Your task to perform on an android device: Search for Mexican restaurants on Maps Image 0: 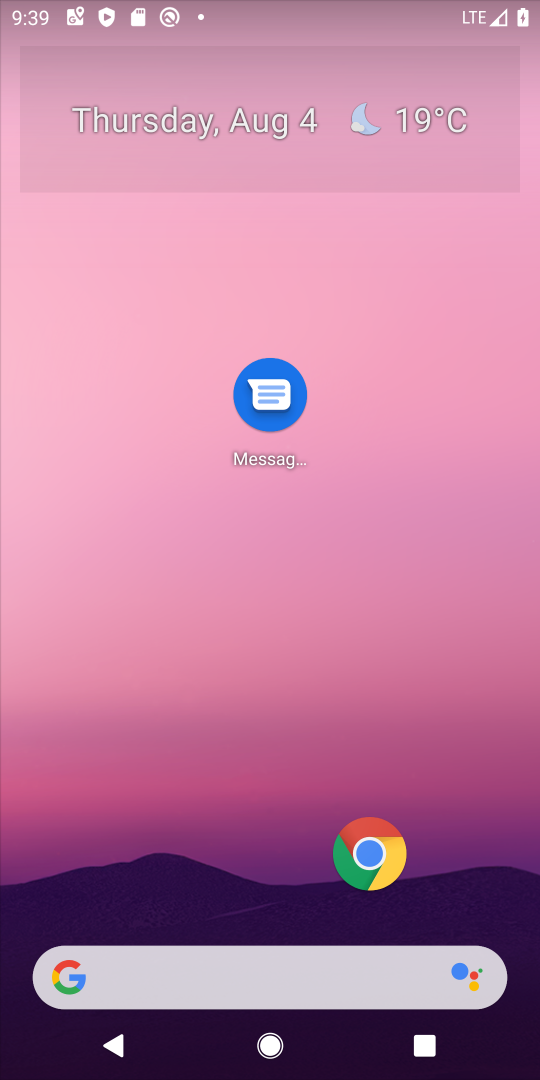
Step 0: drag from (342, 941) to (343, 381)
Your task to perform on an android device: Search for Mexican restaurants on Maps Image 1: 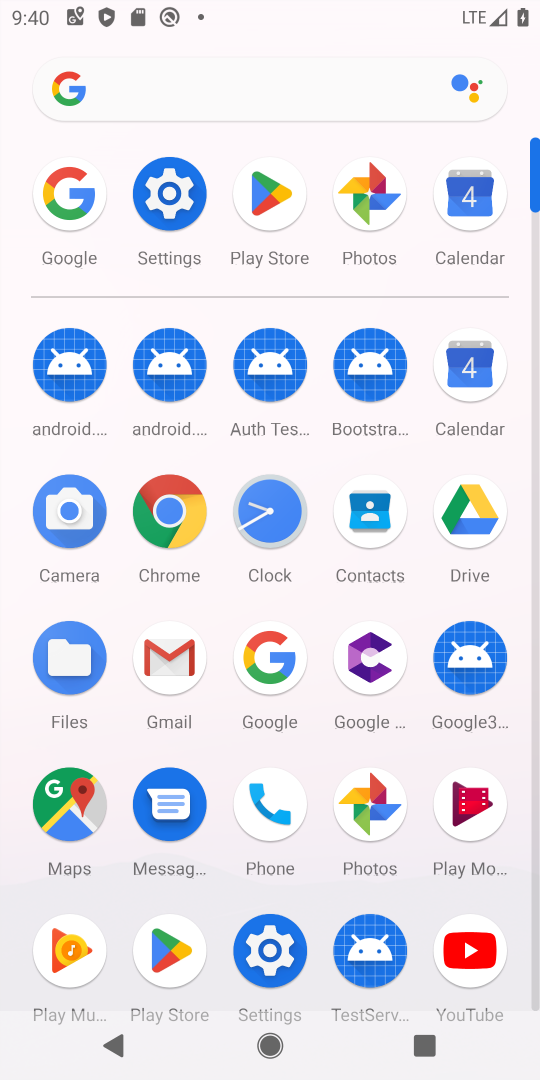
Step 1: click (70, 820)
Your task to perform on an android device: Search for Mexican restaurants on Maps Image 2: 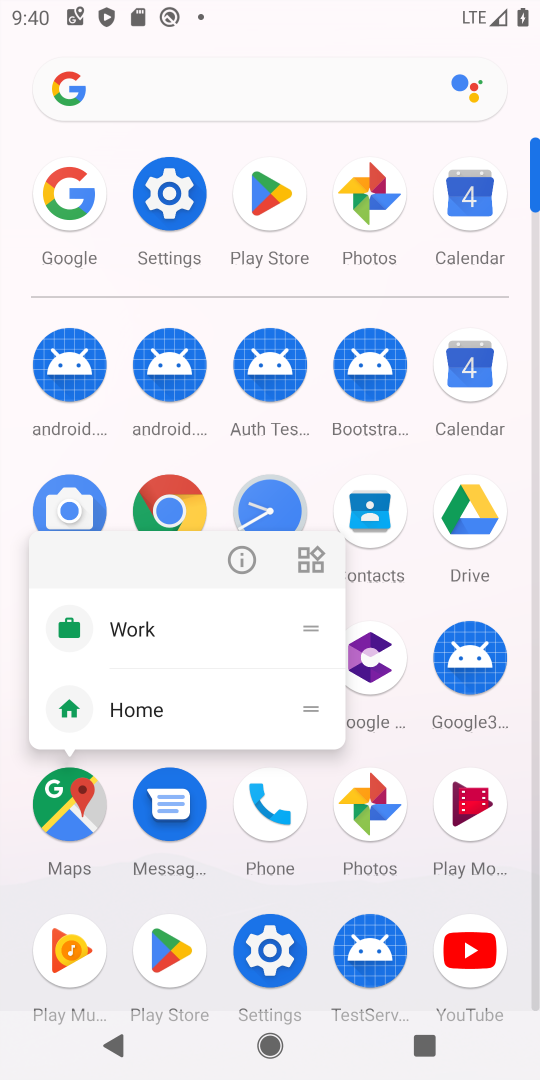
Step 2: click (69, 809)
Your task to perform on an android device: Search for Mexican restaurants on Maps Image 3: 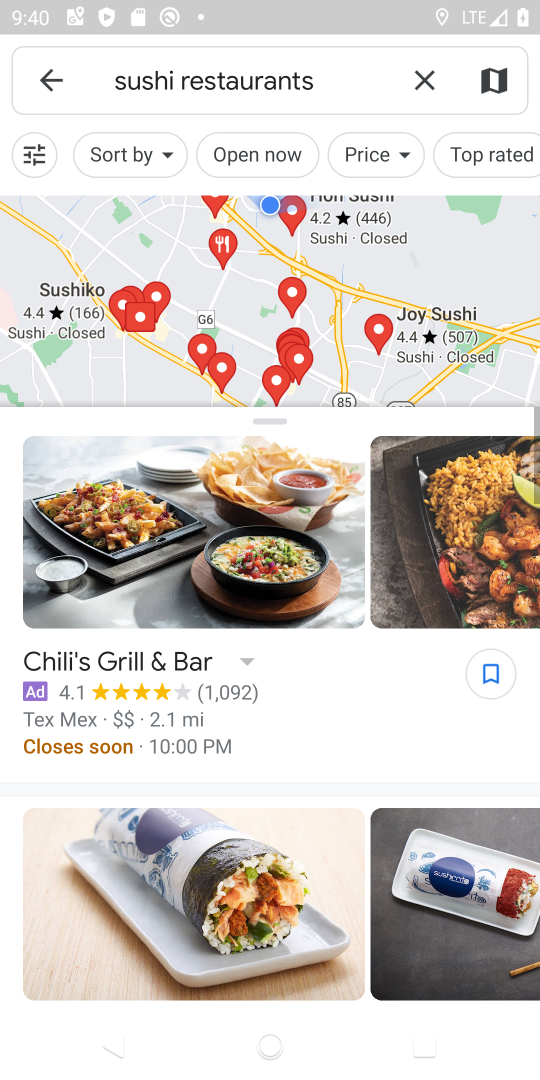
Step 3: click (423, 80)
Your task to perform on an android device: Search for Mexican restaurants on Maps Image 4: 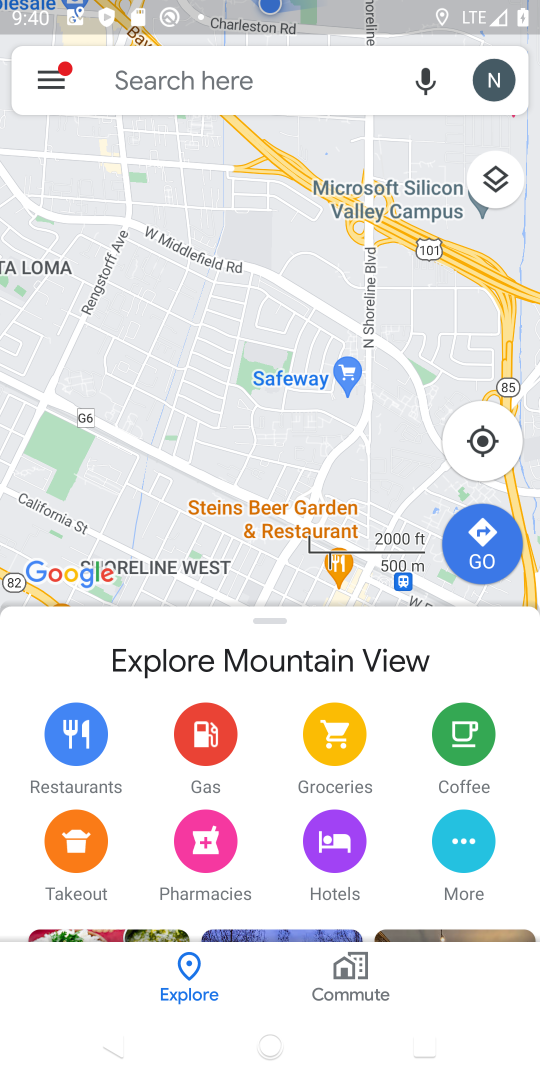
Step 4: click (328, 78)
Your task to perform on an android device: Search for Mexican restaurants on Maps Image 5: 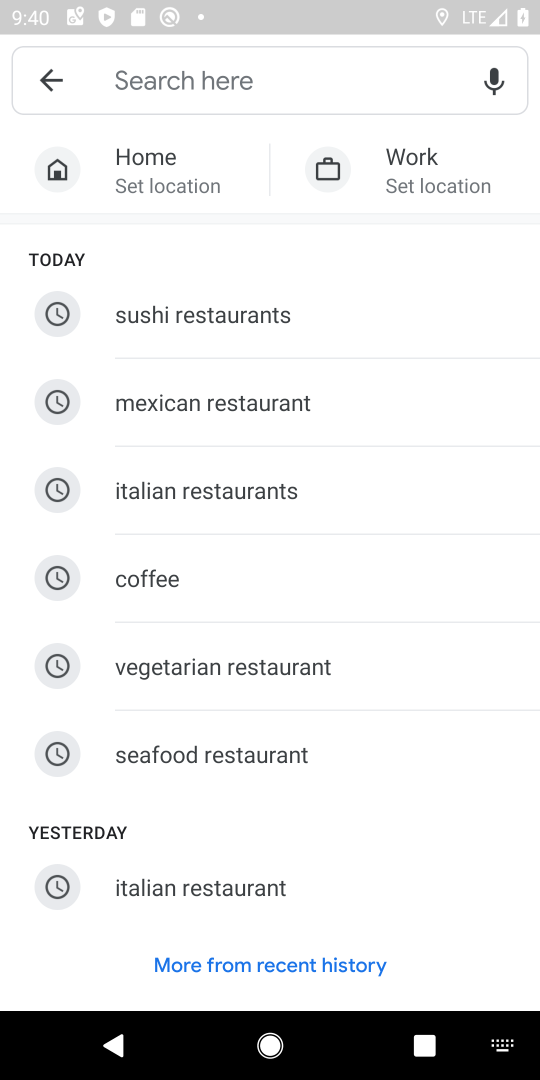
Step 5: click (271, 404)
Your task to perform on an android device: Search for Mexican restaurants on Maps Image 6: 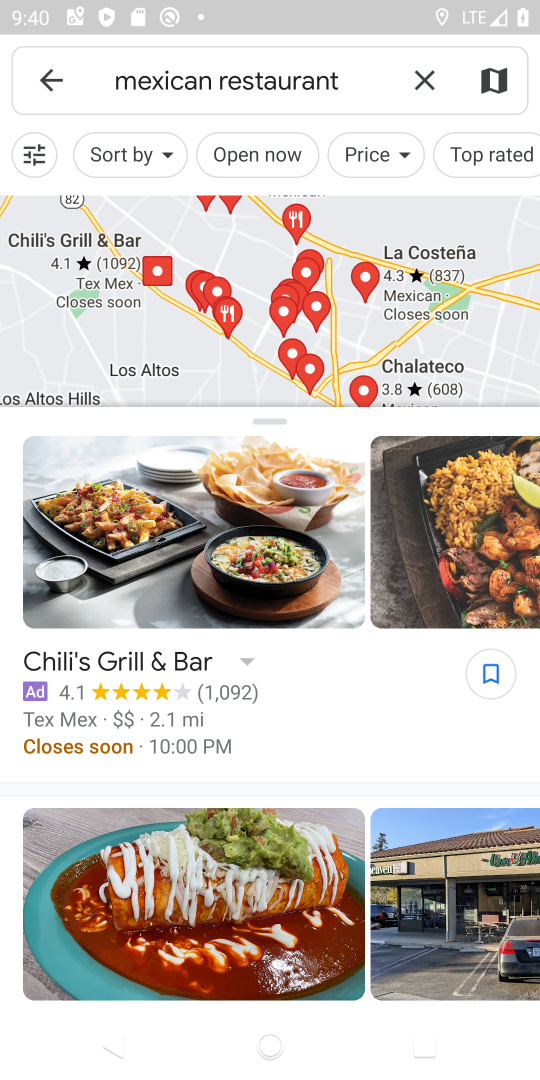
Step 6: task complete